Your task to perform on an android device: Go to eBay Image 0: 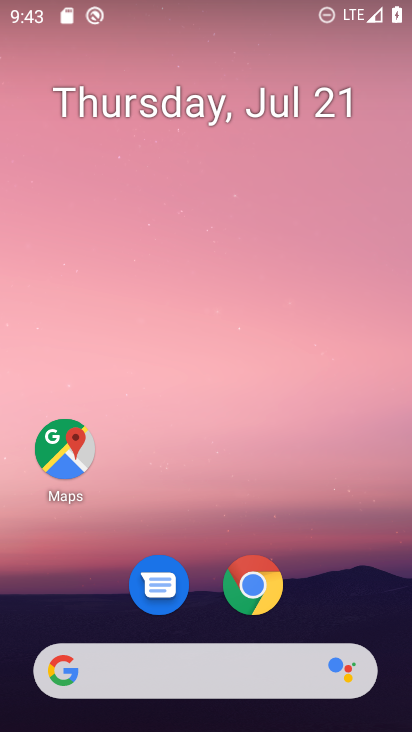
Step 0: click (249, 683)
Your task to perform on an android device: Go to eBay Image 1: 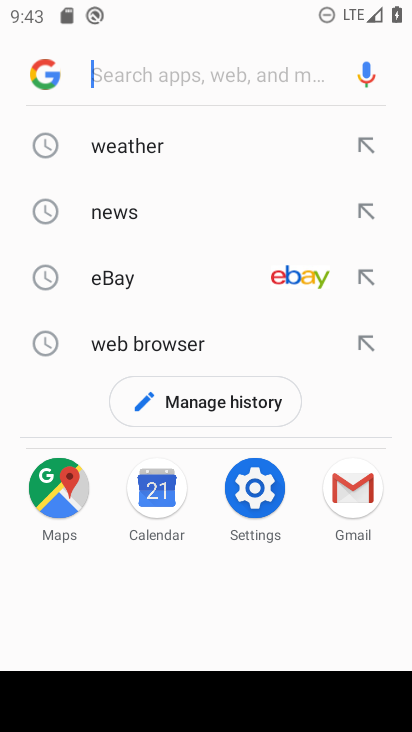
Step 1: click (314, 276)
Your task to perform on an android device: Go to eBay Image 2: 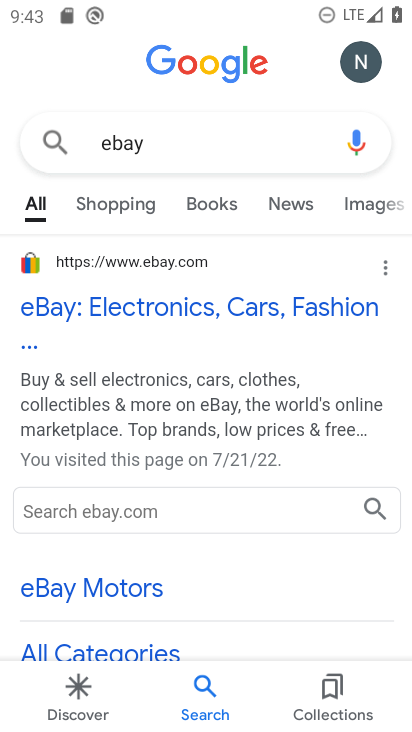
Step 2: click (70, 308)
Your task to perform on an android device: Go to eBay Image 3: 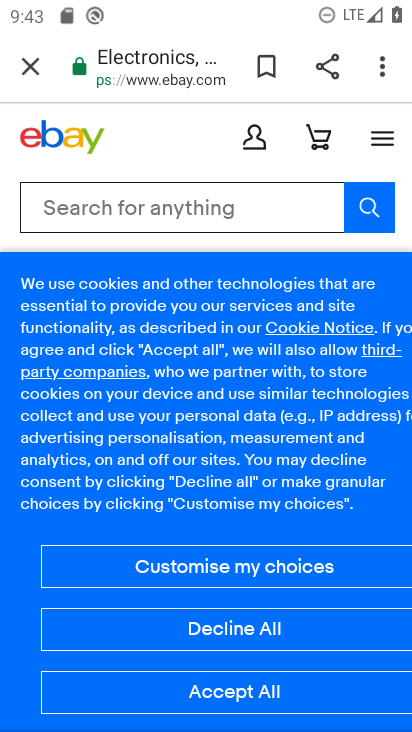
Step 3: task complete